Your task to perform on an android device: What's on my calendar tomorrow? Image 0: 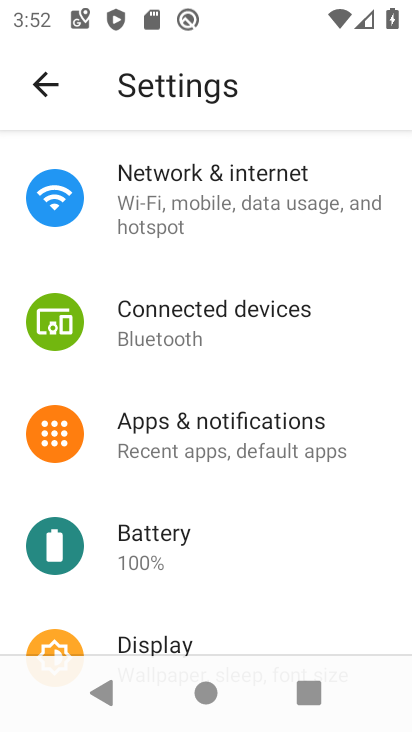
Step 0: press home button
Your task to perform on an android device: What's on my calendar tomorrow? Image 1: 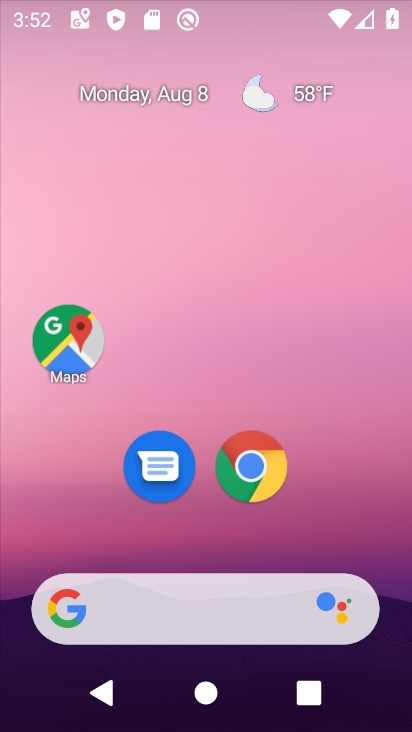
Step 1: drag from (178, 611) to (241, 292)
Your task to perform on an android device: What's on my calendar tomorrow? Image 2: 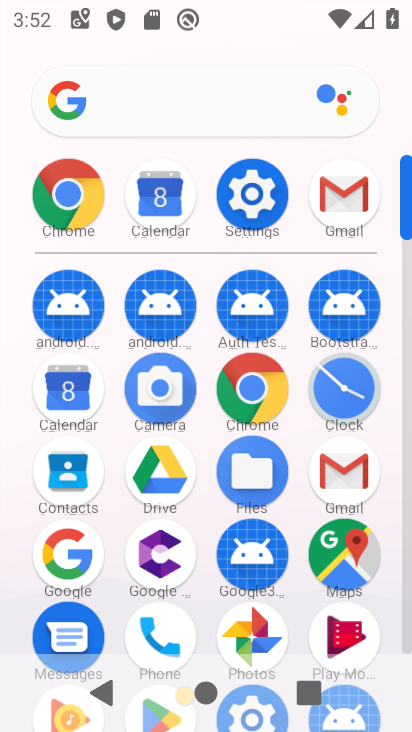
Step 2: click (146, 193)
Your task to perform on an android device: What's on my calendar tomorrow? Image 3: 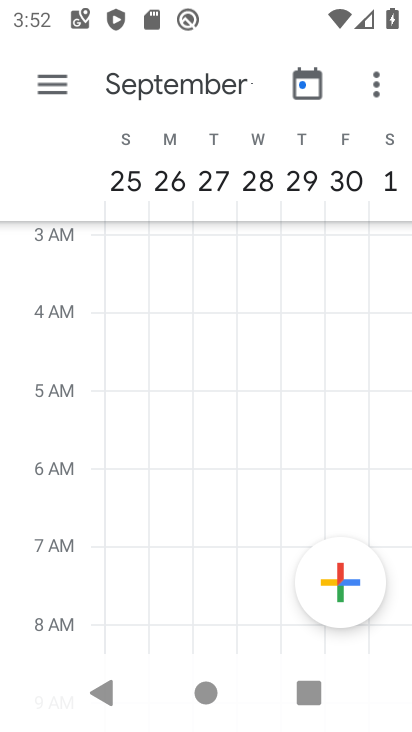
Step 3: click (40, 89)
Your task to perform on an android device: What's on my calendar tomorrow? Image 4: 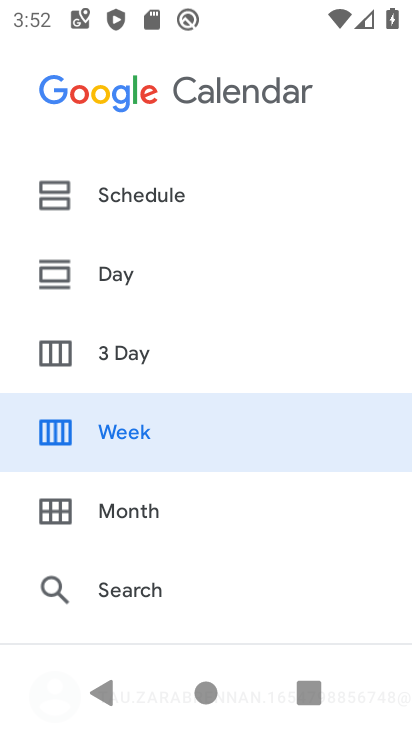
Step 4: click (156, 500)
Your task to perform on an android device: What's on my calendar tomorrow? Image 5: 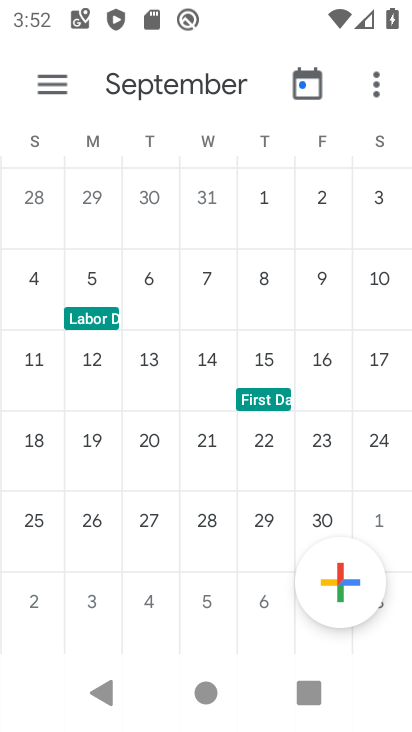
Step 5: drag from (29, 263) to (409, 311)
Your task to perform on an android device: What's on my calendar tomorrow? Image 6: 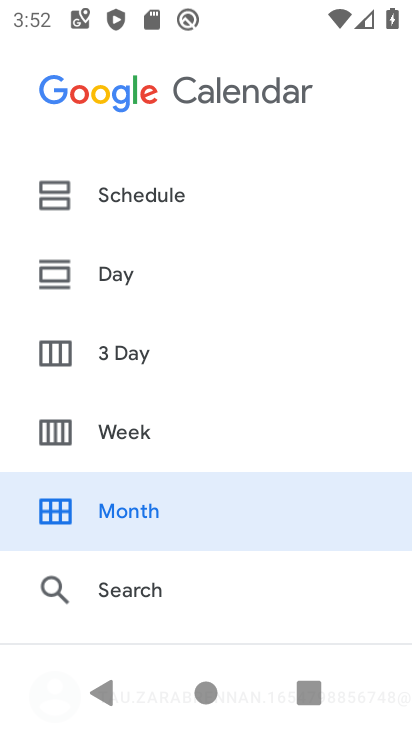
Step 6: click (114, 263)
Your task to perform on an android device: What's on my calendar tomorrow? Image 7: 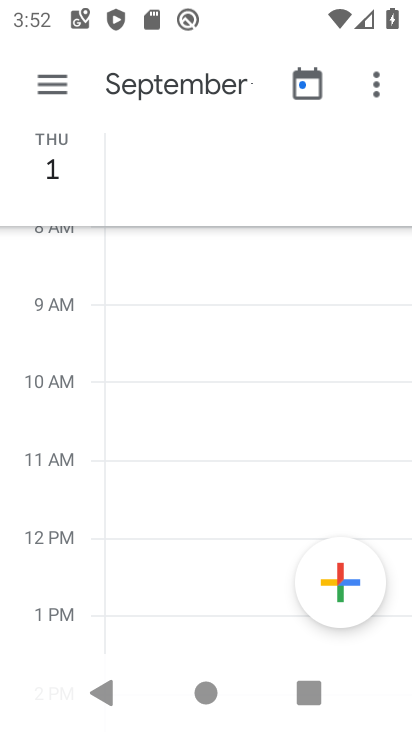
Step 7: click (63, 84)
Your task to perform on an android device: What's on my calendar tomorrow? Image 8: 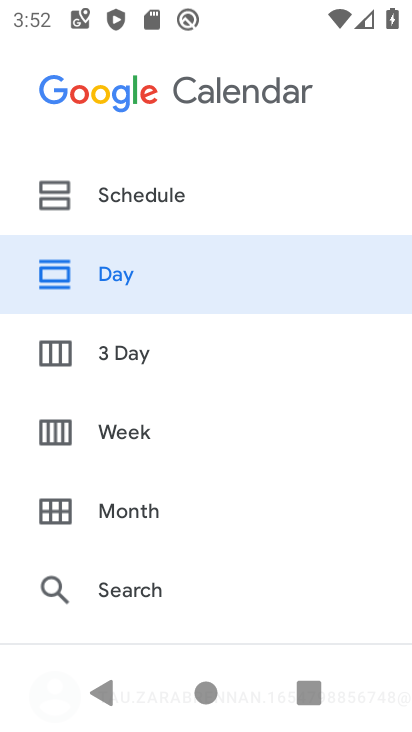
Step 8: click (133, 511)
Your task to perform on an android device: What's on my calendar tomorrow? Image 9: 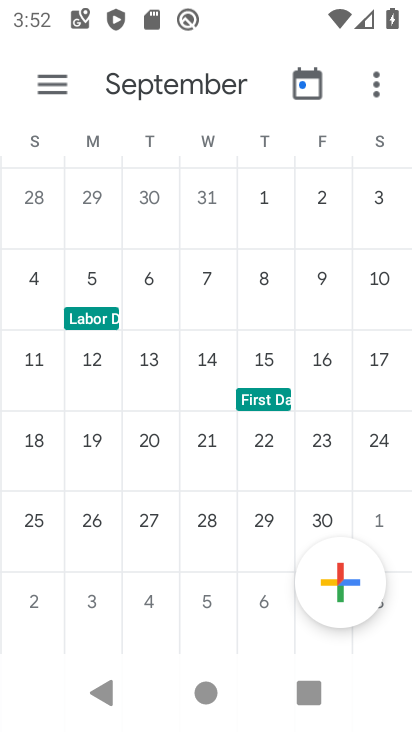
Step 9: drag from (96, 275) to (401, 342)
Your task to perform on an android device: What's on my calendar tomorrow? Image 10: 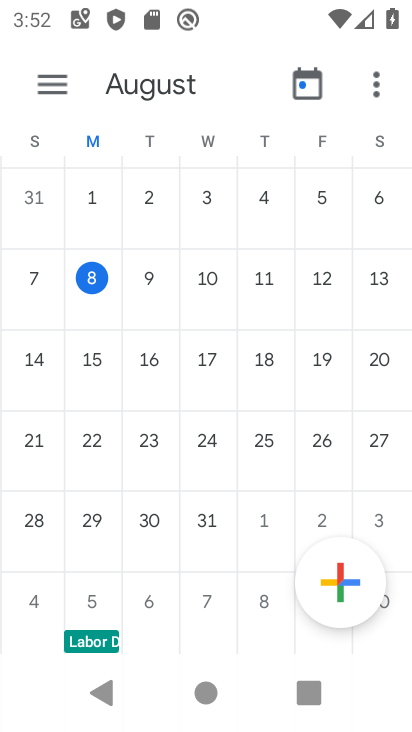
Step 10: click (141, 279)
Your task to perform on an android device: What's on my calendar tomorrow? Image 11: 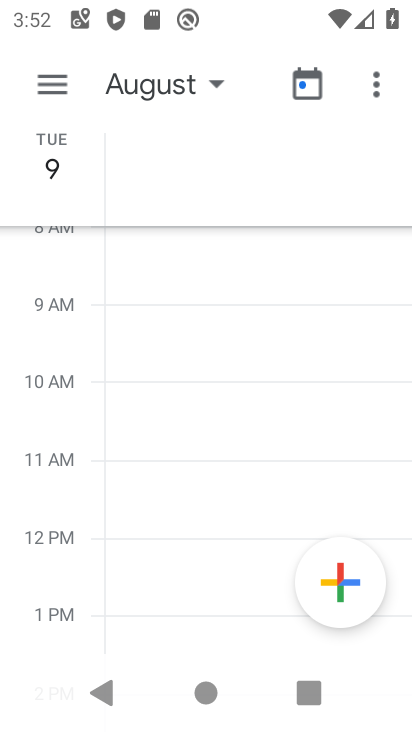
Step 11: task complete